Your task to perform on an android device: Open wifi settings Image 0: 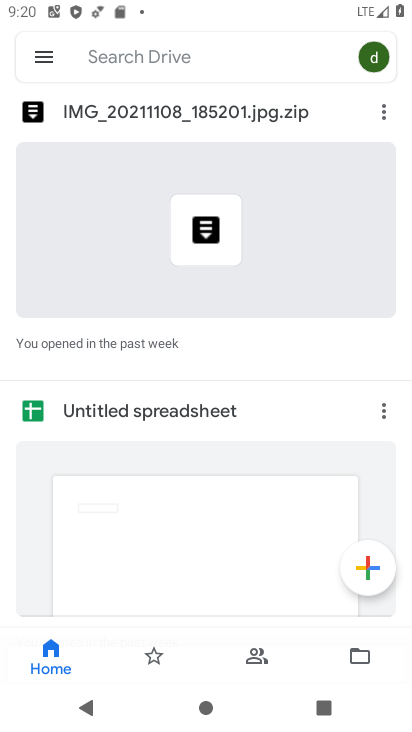
Step 0: press back button
Your task to perform on an android device: Open wifi settings Image 1: 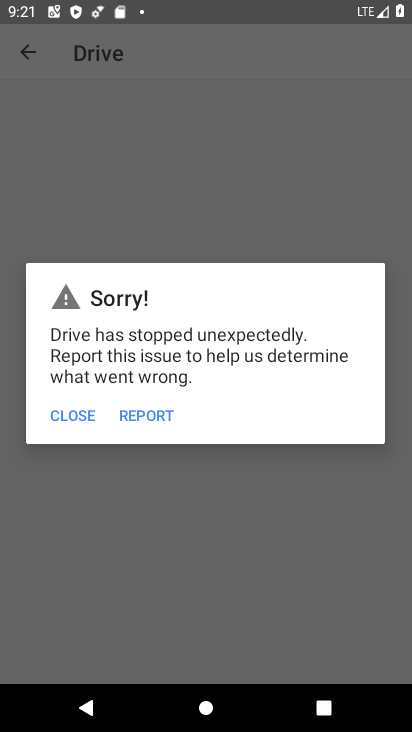
Step 1: press home button
Your task to perform on an android device: Open wifi settings Image 2: 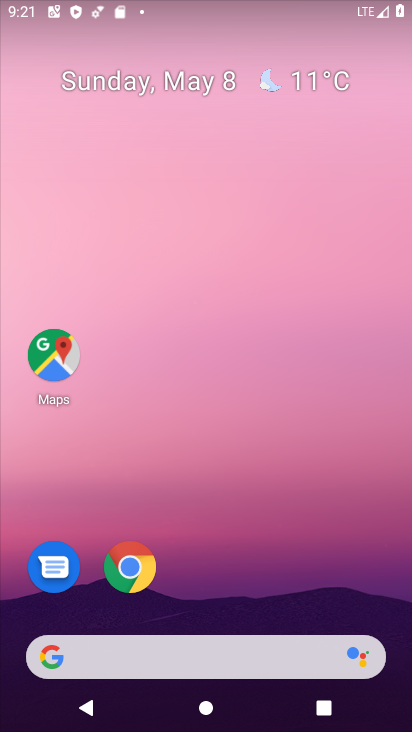
Step 2: drag from (121, 11) to (150, 550)
Your task to perform on an android device: Open wifi settings Image 3: 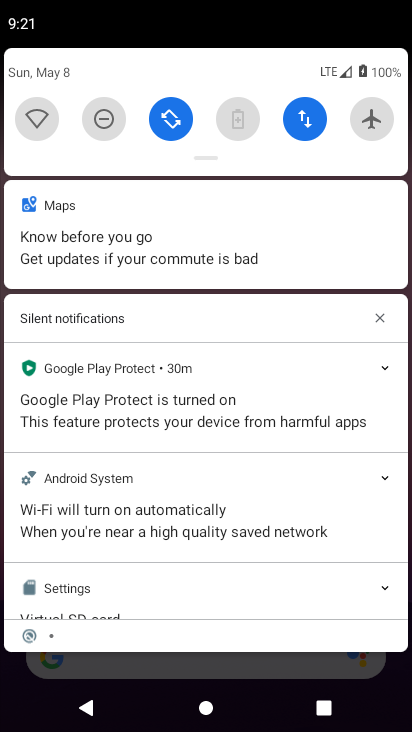
Step 3: click (32, 116)
Your task to perform on an android device: Open wifi settings Image 4: 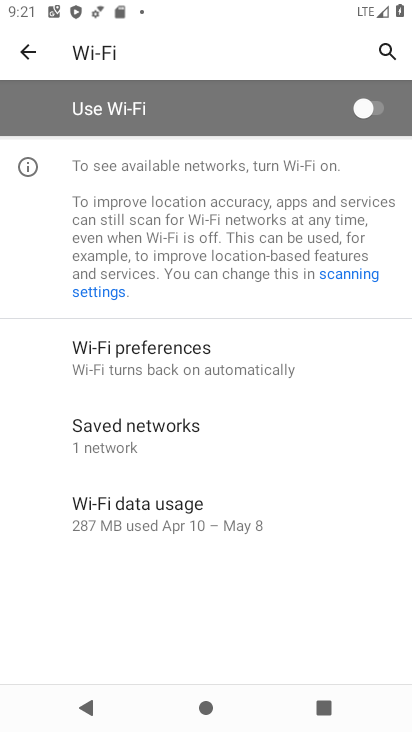
Step 4: task complete